Your task to perform on an android device: toggle show notifications on the lock screen Image 0: 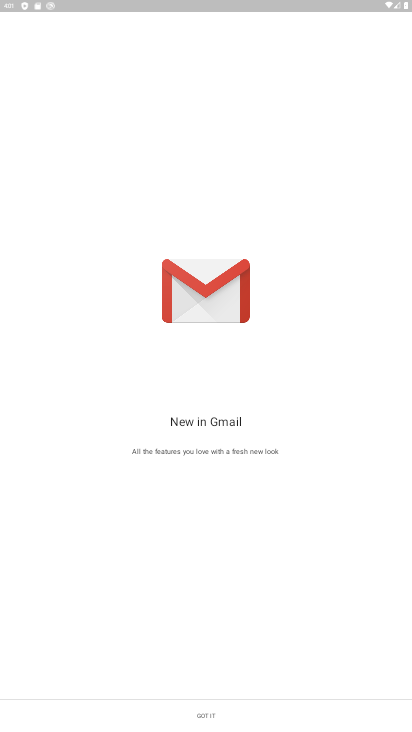
Step 0: press home button
Your task to perform on an android device: toggle show notifications on the lock screen Image 1: 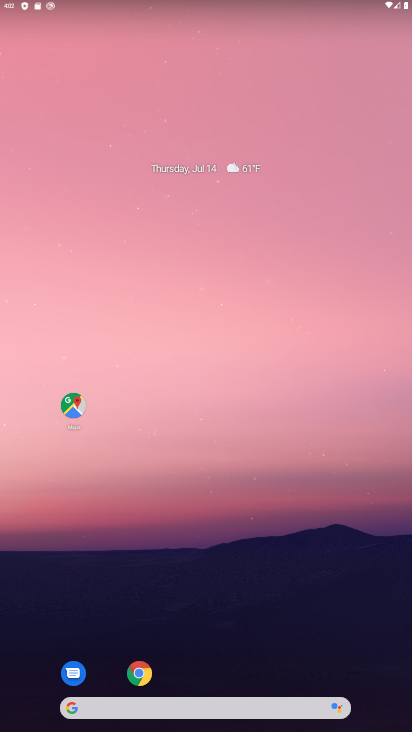
Step 1: drag from (224, 676) to (226, 44)
Your task to perform on an android device: toggle show notifications on the lock screen Image 2: 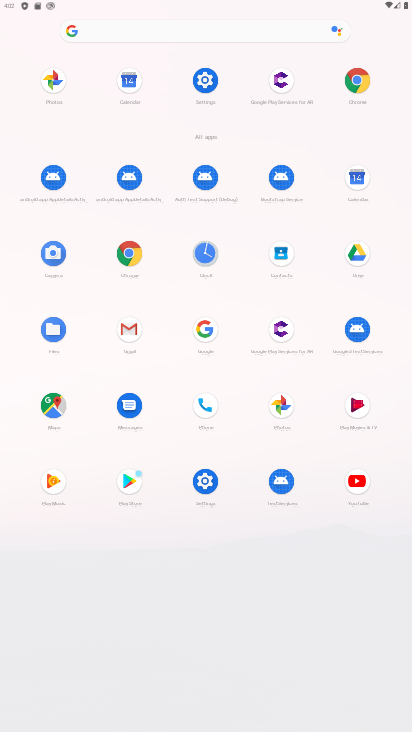
Step 2: click (200, 481)
Your task to perform on an android device: toggle show notifications on the lock screen Image 3: 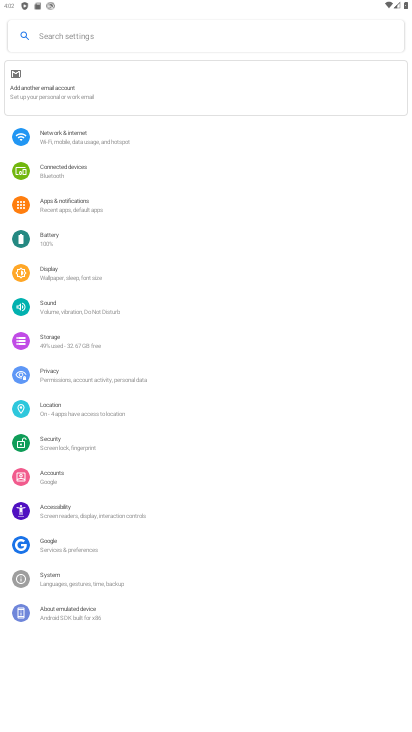
Step 3: click (55, 406)
Your task to perform on an android device: toggle show notifications on the lock screen Image 4: 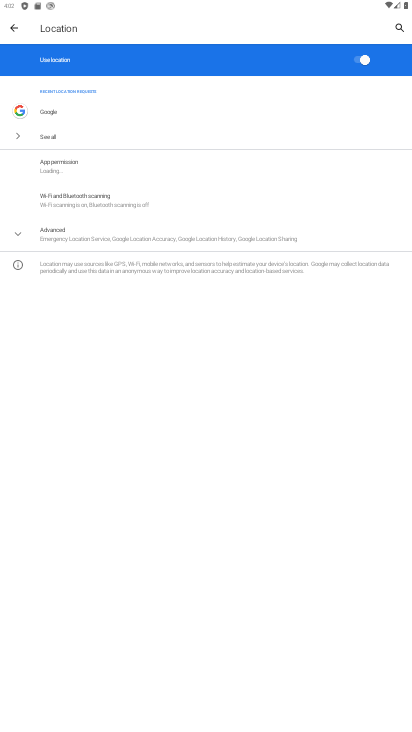
Step 4: click (12, 18)
Your task to perform on an android device: toggle show notifications on the lock screen Image 5: 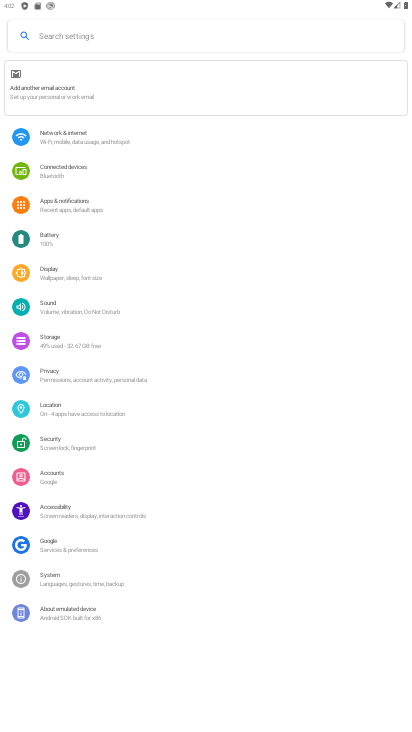
Step 5: click (28, 204)
Your task to perform on an android device: toggle show notifications on the lock screen Image 6: 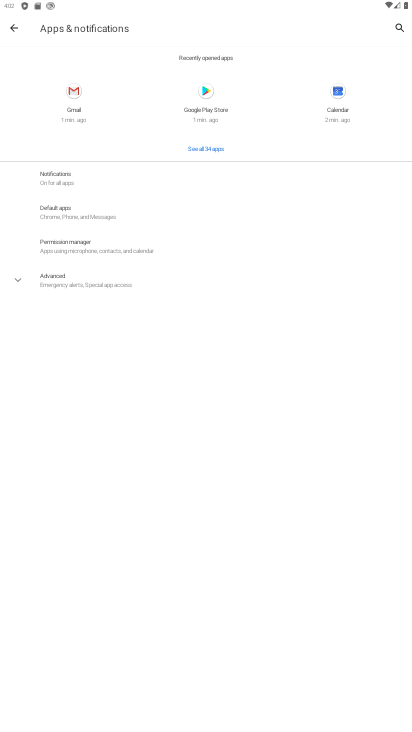
Step 6: click (78, 176)
Your task to perform on an android device: toggle show notifications on the lock screen Image 7: 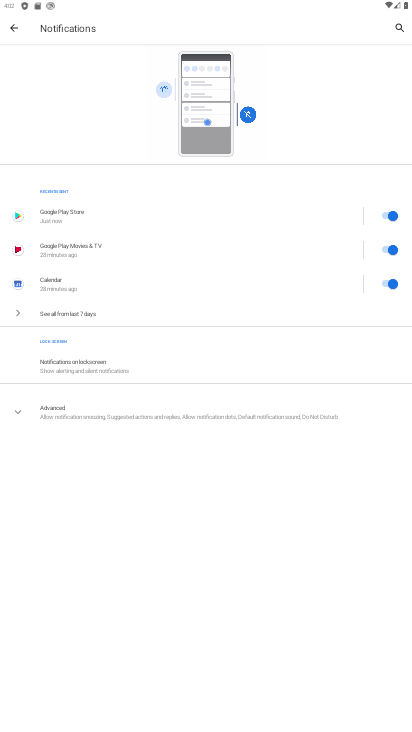
Step 7: click (66, 367)
Your task to perform on an android device: toggle show notifications on the lock screen Image 8: 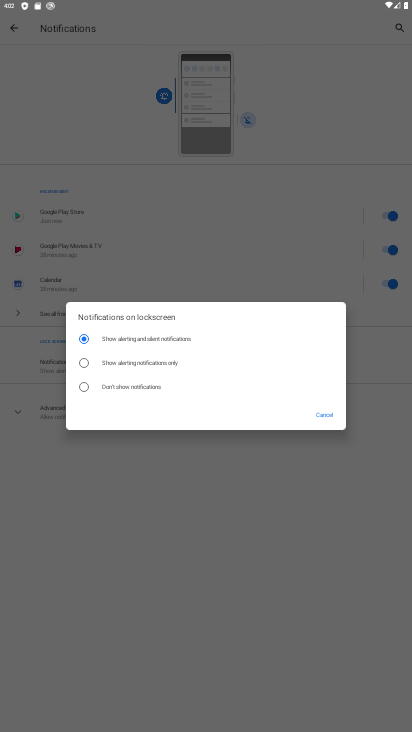
Step 8: click (124, 362)
Your task to perform on an android device: toggle show notifications on the lock screen Image 9: 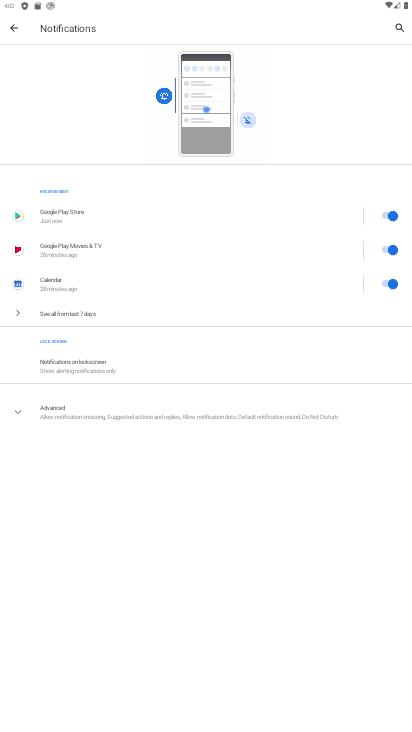
Step 9: task complete